Your task to perform on an android device: Open Youtube and go to the subscriptions tab Image 0: 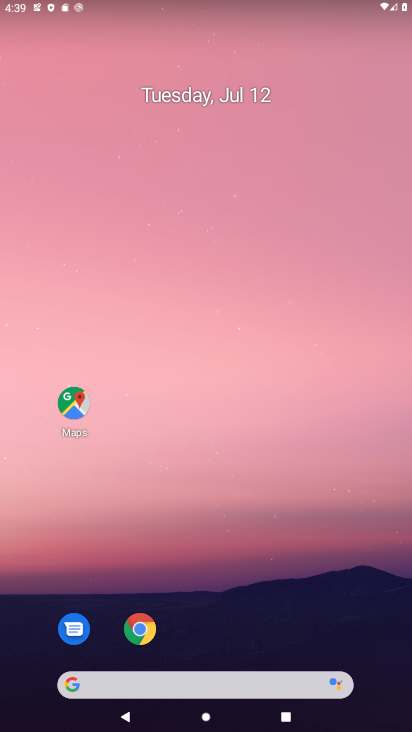
Step 0: drag from (259, 542) to (282, 52)
Your task to perform on an android device: Open Youtube and go to the subscriptions tab Image 1: 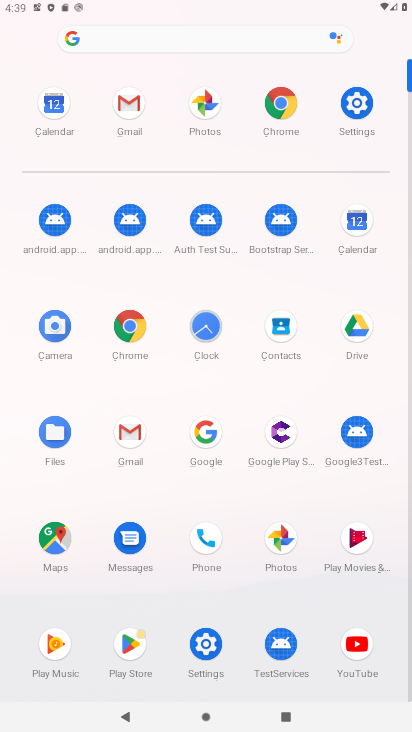
Step 1: click (351, 648)
Your task to perform on an android device: Open Youtube and go to the subscriptions tab Image 2: 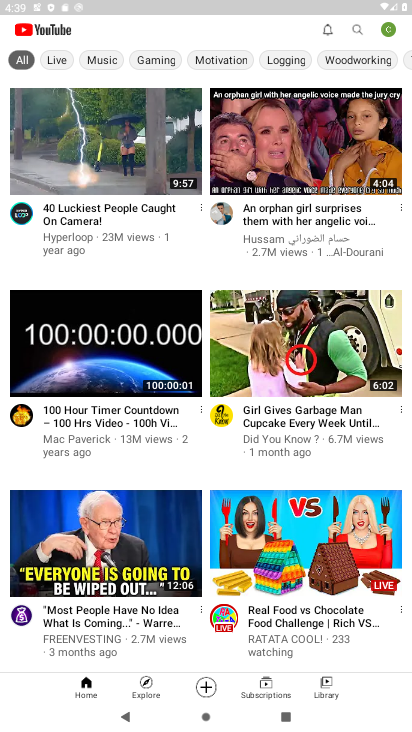
Step 2: click (265, 681)
Your task to perform on an android device: Open Youtube and go to the subscriptions tab Image 3: 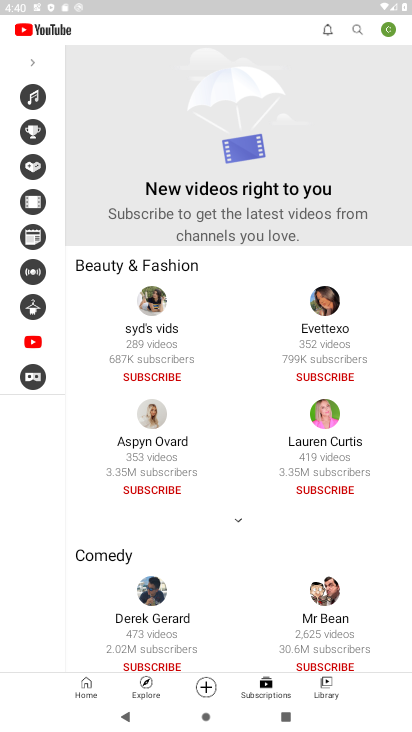
Step 3: task complete